Your task to perform on an android device: star an email in the gmail app Image 0: 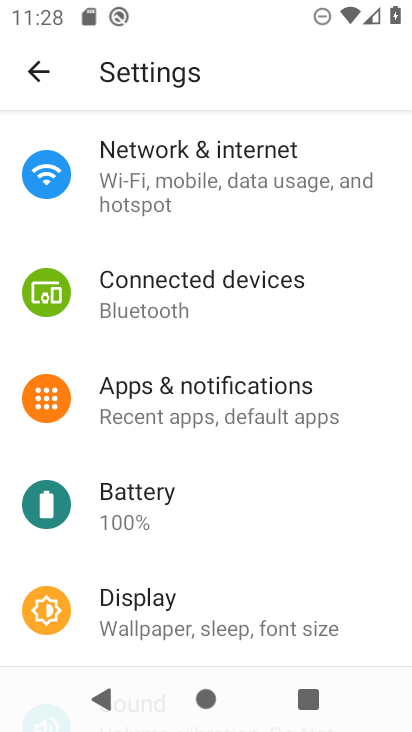
Step 0: press home button
Your task to perform on an android device: star an email in the gmail app Image 1: 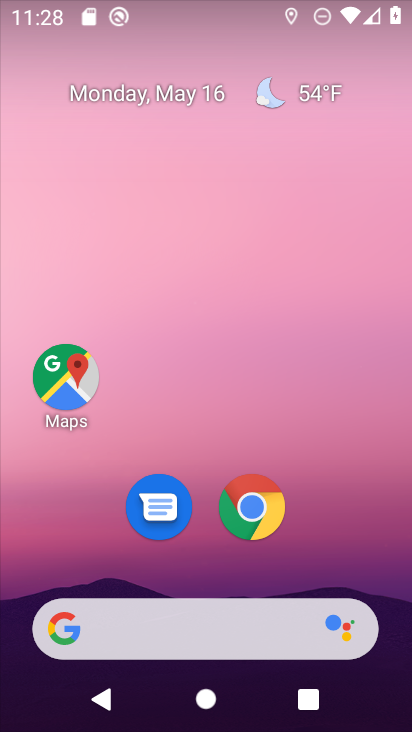
Step 1: drag from (398, 619) to (410, 325)
Your task to perform on an android device: star an email in the gmail app Image 2: 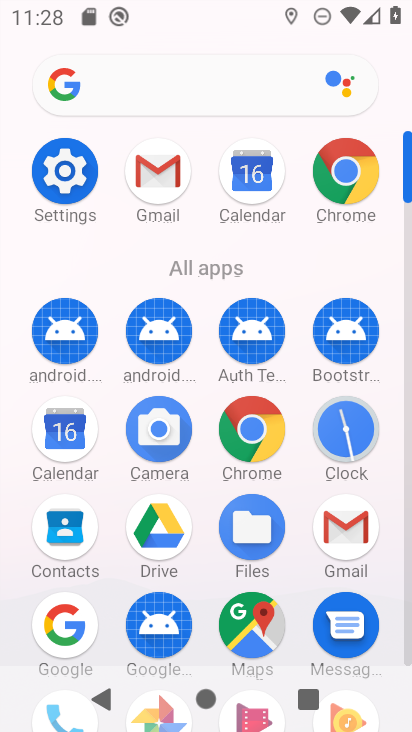
Step 2: click (170, 178)
Your task to perform on an android device: star an email in the gmail app Image 3: 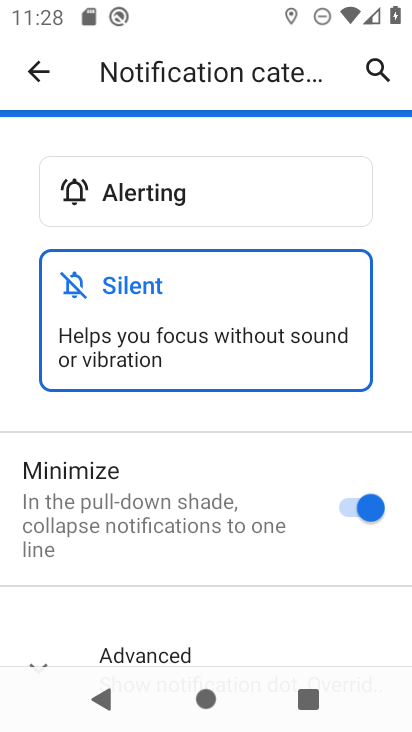
Step 3: click (43, 72)
Your task to perform on an android device: star an email in the gmail app Image 4: 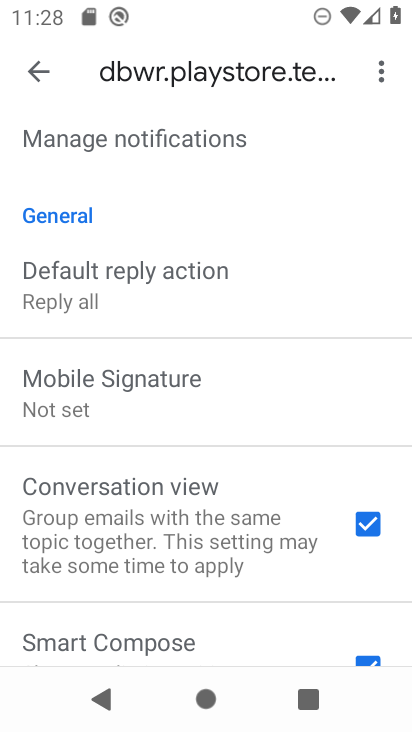
Step 4: click (43, 72)
Your task to perform on an android device: star an email in the gmail app Image 5: 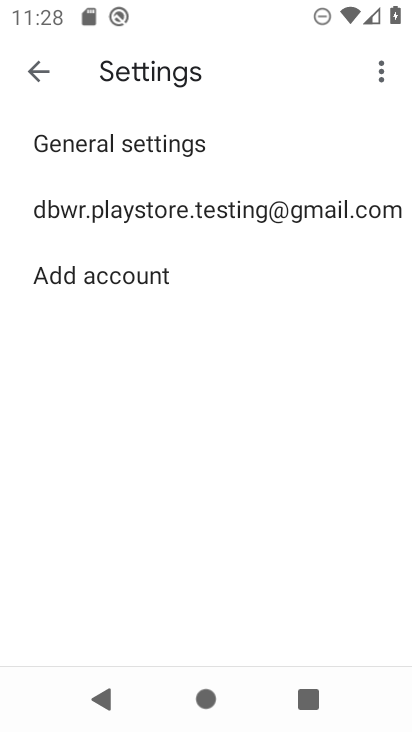
Step 5: click (43, 72)
Your task to perform on an android device: star an email in the gmail app Image 6: 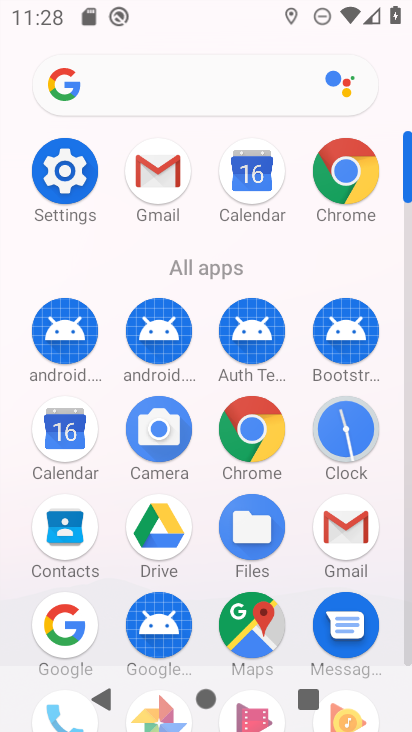
Step 6: click (164, 191)
Your task to perform on an android device: star an email in the gmail app Image 7: 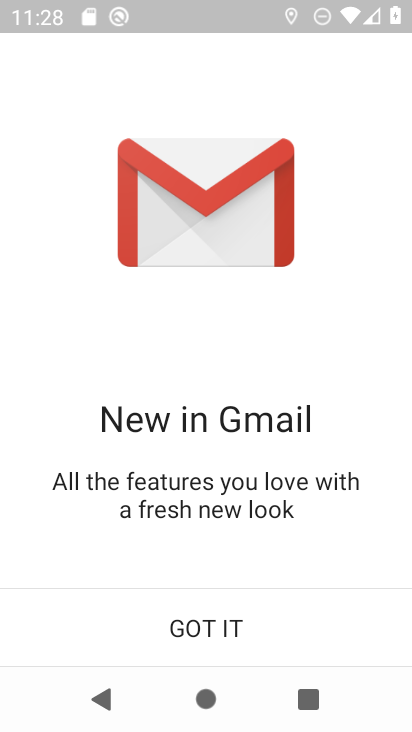
Step 7: click (208, 624)
Your task to perform on an android device: star an email in the gmail app Image 8: 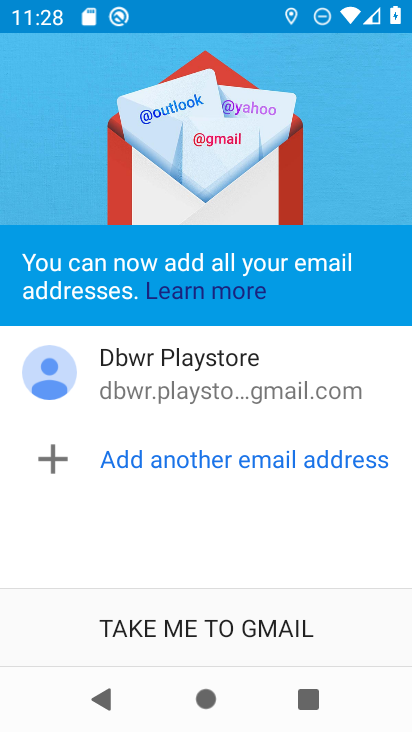
Step 8: click (208, 624)
Your task to perform on an android device: star an email in the gmail app Image 9: 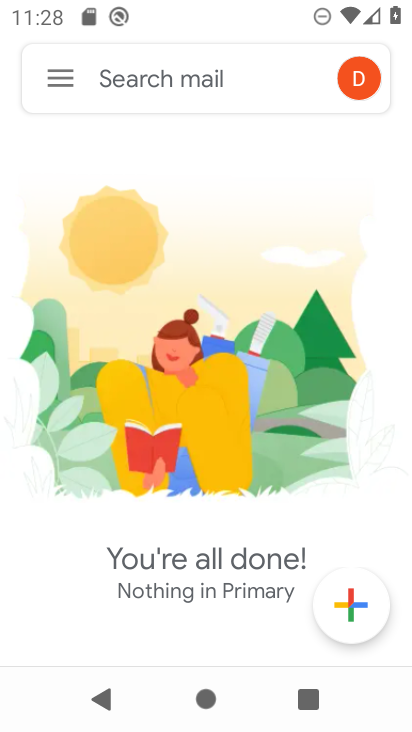
Step 9: task complete